Your task to perform on an android device: Empty the shopping cart on bestbuy.com. Image 0: 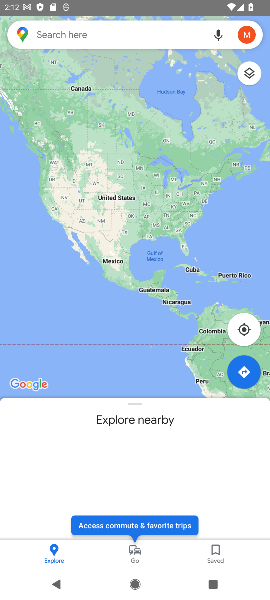
Step 0: press home button
Your task to perform on an android device: Empty the shopping cart on bestbuy.com. Image 1: 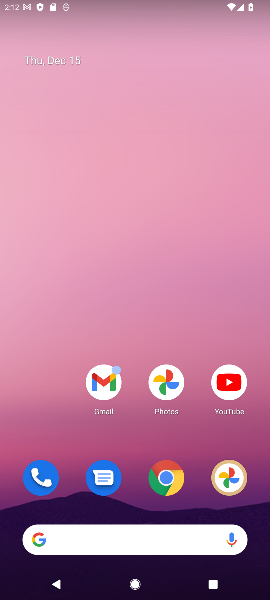
Step 1: click (168, 480)
Your task to perform on an android device: Empty the shopping cart on bestbuy.com. Image 2: 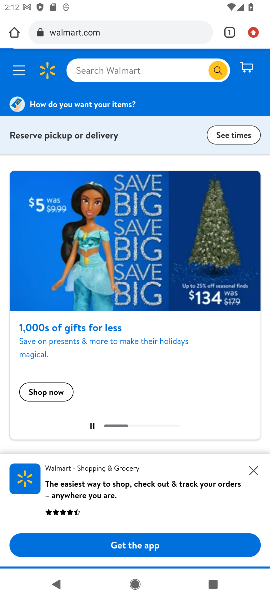
Step 2: click (96, 33)
Your task to perform on an android device: Empty the shopping cart on bestbuy.com. Image 3: 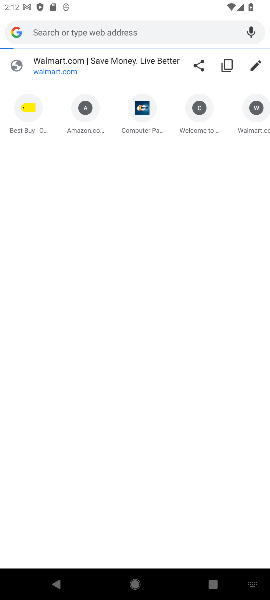
Step 3: click (29, 119)
Your task to perform on an android device: Empty the shopping cart on bestbuy.com. Image 4: 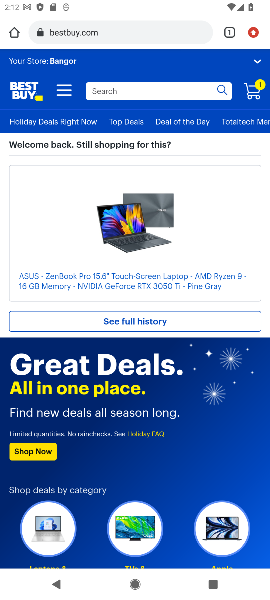
Step 4: click (253, 94)
Your task to perform on an android device: Empty the shopping cart on bestbuy.com. Image 5: 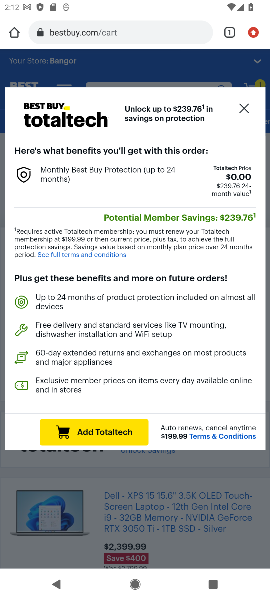
Step 5: click (241, 113)
Your task to perform on an android device: Empty the shopping cart on bestbuy.com. Image 6: 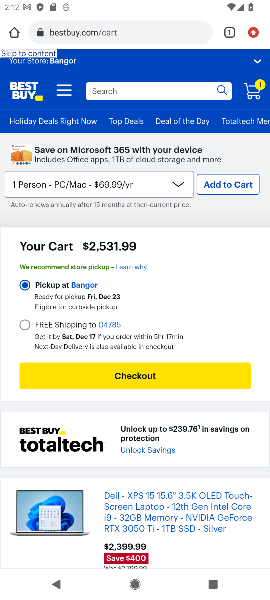
Step 6: drag from (88, 348) to (90, 156)
Your task to perform on an android device: Empty the shopping cart on bestbuy.com. Image 7: 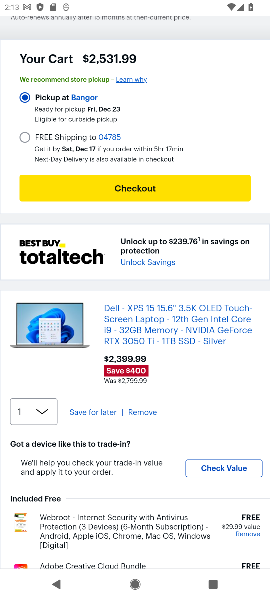
Step 7: click (139, 416)
Your task to perform on an android device: Empty the shopping cart on bestbuy.com. Image 8: 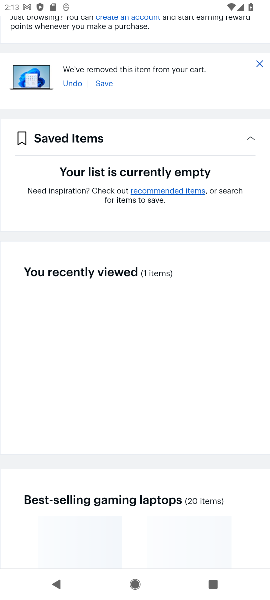
Step 8: task complete